Your task to perform on an android device: turn on javascript in the chrome app Image 0: 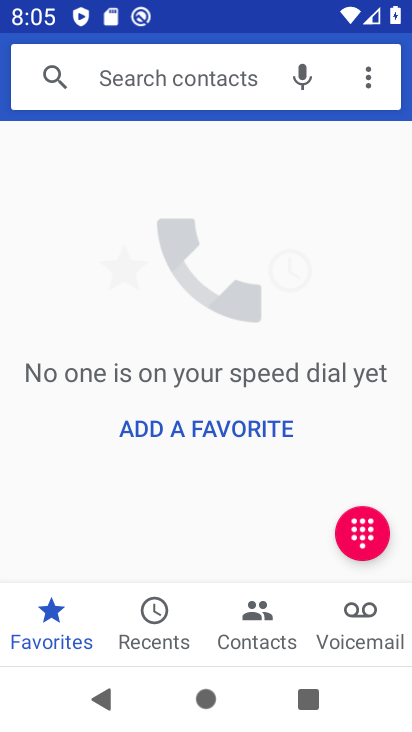
Step 0: press home button
Your task to perform on an android device: turn on javascript in the chrome app Image 1: 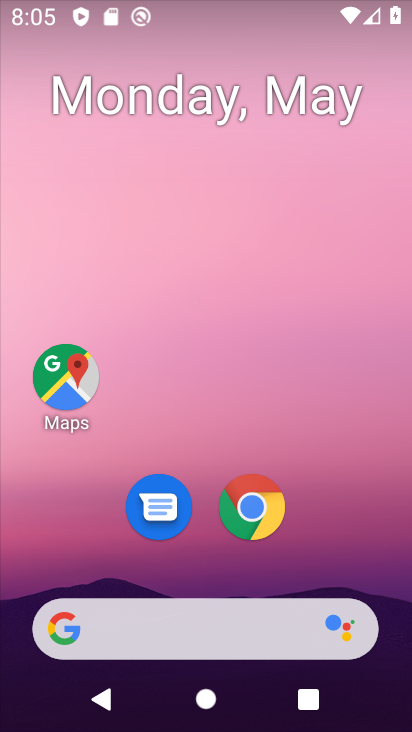
Step 1: click (261, 507)
Your task to perform on an android device: turn on javascript in the chrome app Image 2: 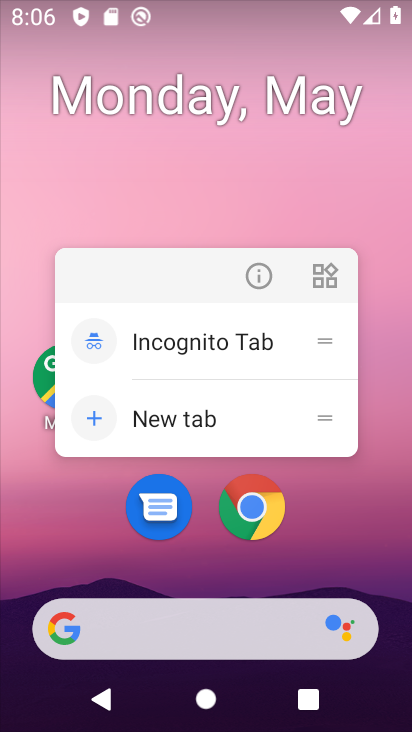
Step 2: click (249, 517)
Your task to perform on an android device: turn on javascript in the chrome app Image 3: 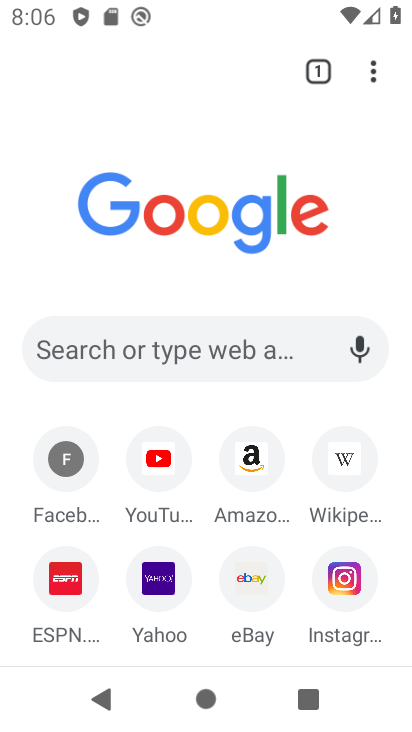
Step 3: click (377, 77)
Your task to perform on an android device: turn on javascript in the chrome app Image 4: 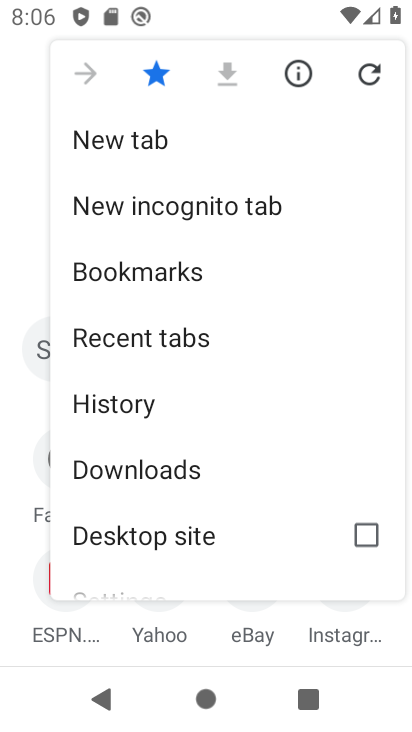
Step 4: drag from (196, 498) to (313, 9)
Your task to perform on an android device: turn on javascript in the chrome app Image 5: 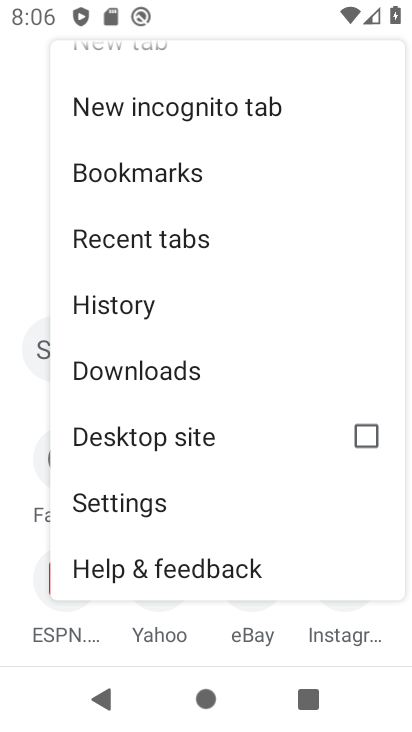
Step 5: click (149, 502)
Your task to perform on an android device: turn on javascript in the chrome app Image 6: 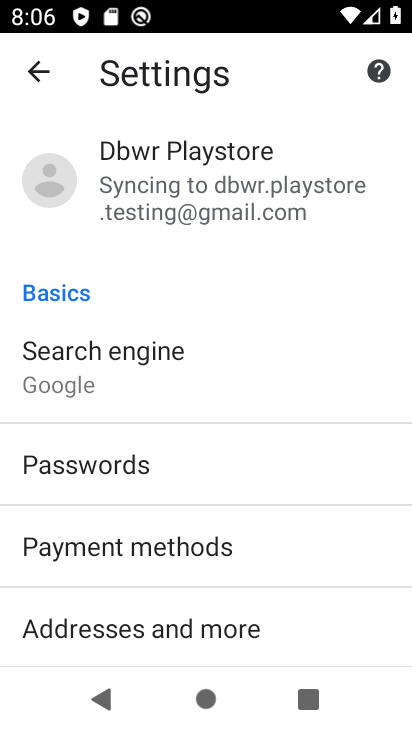
Step 6: drag from (157, 485) to (240, 52)
Your task to perform on an android device: turn on javascript in the chrome app Image 7: 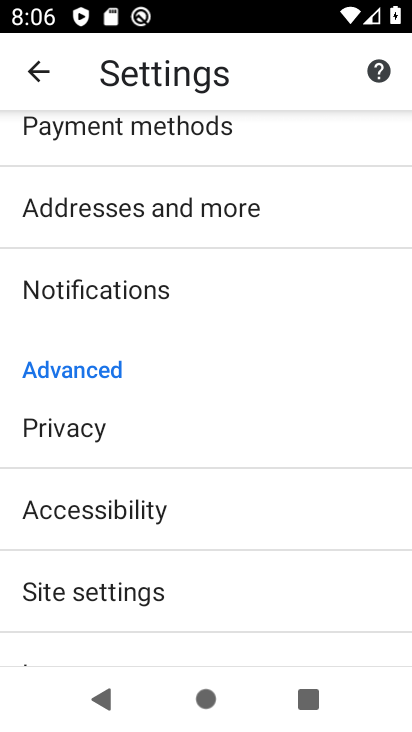
Step 7: click (130, 588)
Your task to perform on an android device: turn on javascript in the chrome app Image 8: 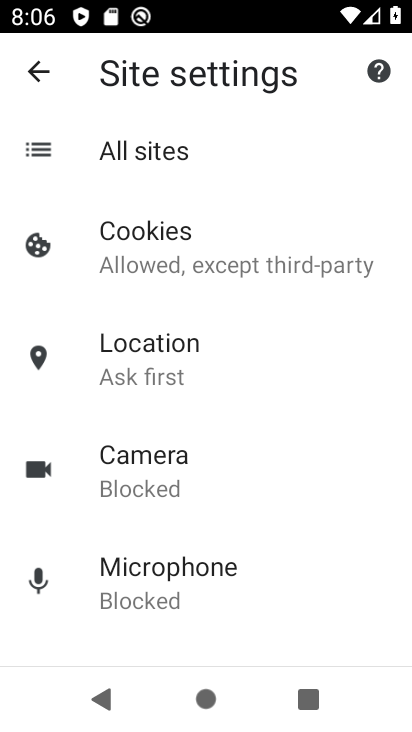
Step 8: drag from (156, 523) to (280, 128)
Your task to perform on an android device: turn on javascript in the chrome app Image 9: 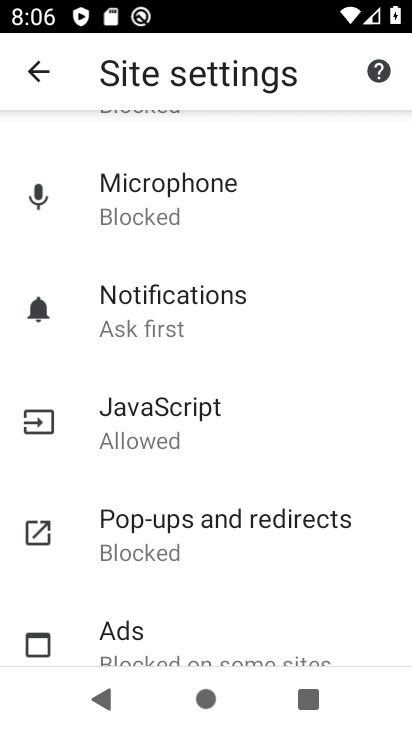
Step 9: click (192, 424)
Your task to perform on an android device: turn on javascript in the chrome app Image 10: 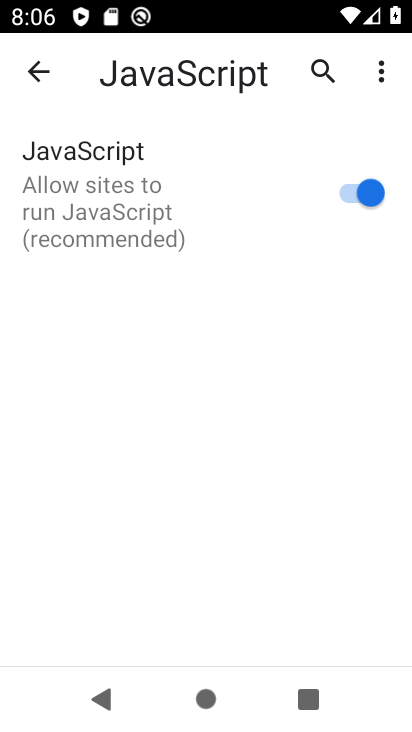
Step 10: task complete